Your task to perform on an android device: change the clock display to digital Image 0: 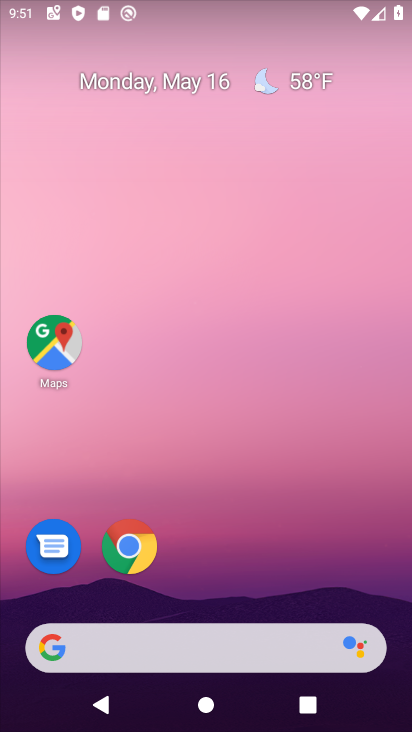
Step 0: drag from (259, 564) to (284, 270)
Your task to perform on an android device: change the clock display to digital Image 1: 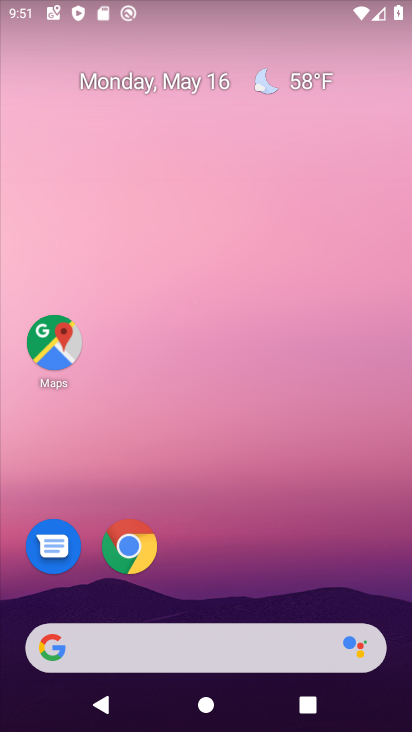
Step 1: drag from (264, 516) to (250, 169)
Your task to perform on an android device: change the clock display to digital Image 2: 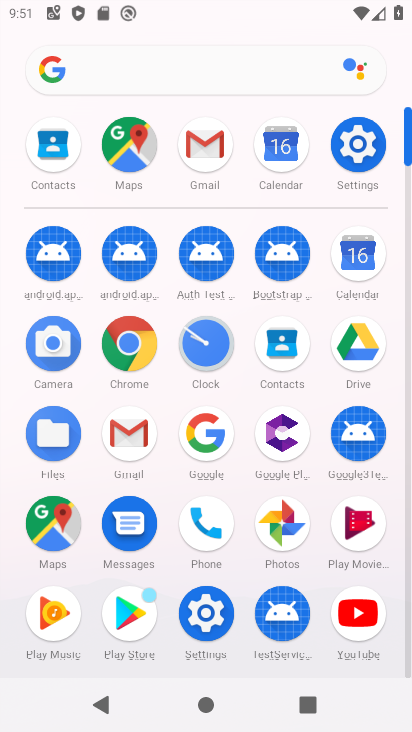
Step 2: click (208, 344)
Your task to perform on an android device: change the clock display to digital Image 3: 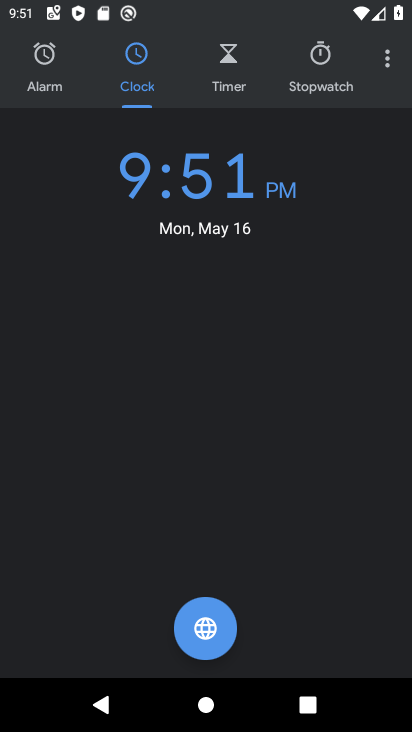
Step 3: click (387, 59)
Your task to perform on an android device: change the clock display to digital Image 4: 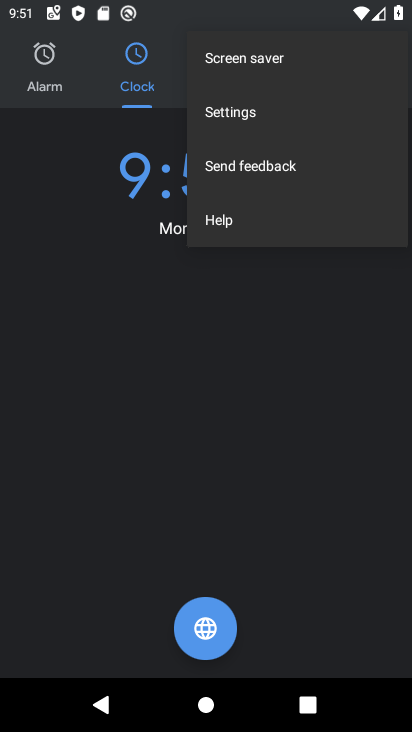
Step 4: click (254, 113)
Your task to perform on an android device: change the clock display to digital Image 5: 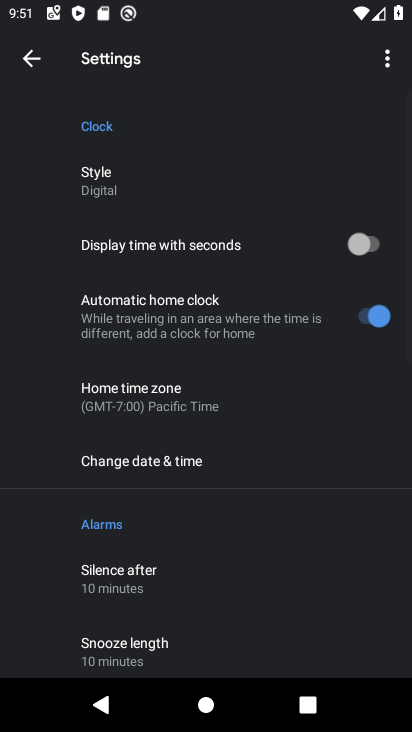
Step 5: click (116, 185)
Your task to perform on an android device: change the clock display to digital Image 6: 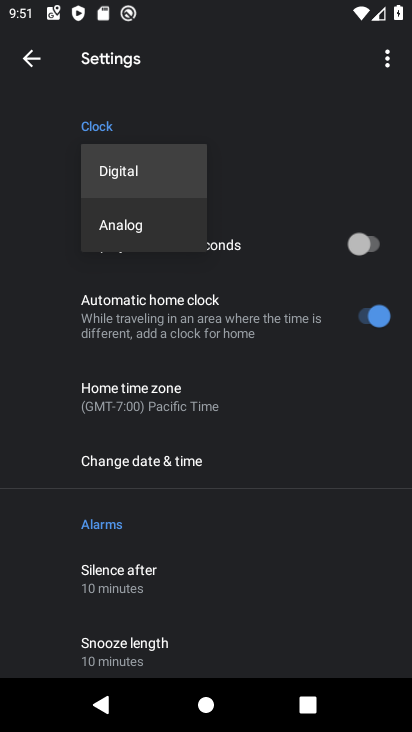
Step 6: click (116, 185)
Your task to perform on an android device: change the clock display to digital Image 7: 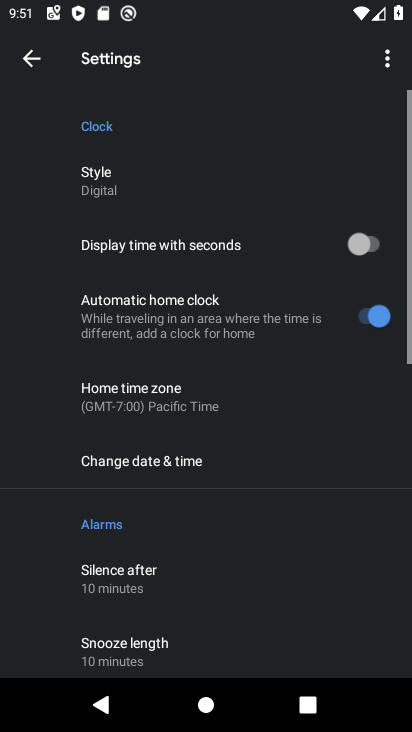
Step 7: task complete